Your task to perform on an android device: Open Google Image 0: 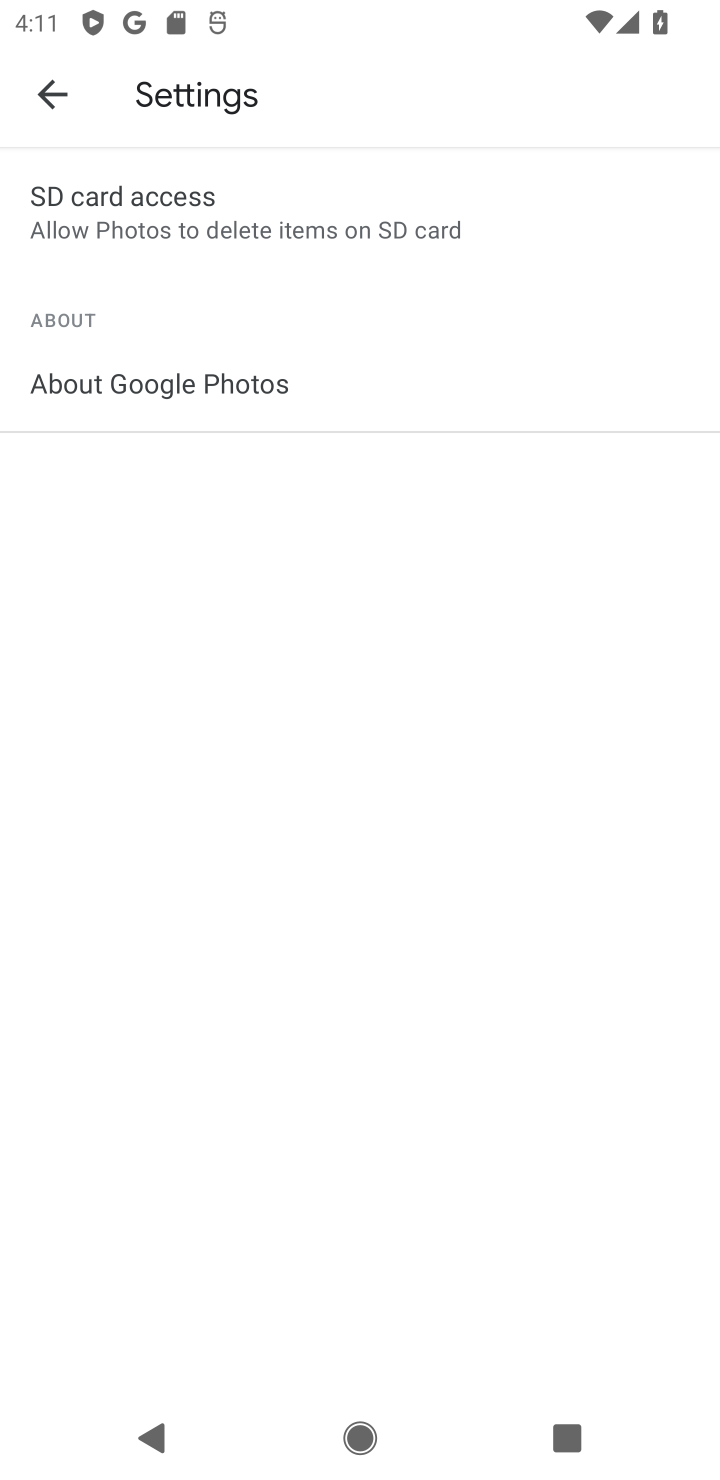
Step 0: press home button
Your task to perform on an android device: Open Google Image 1: 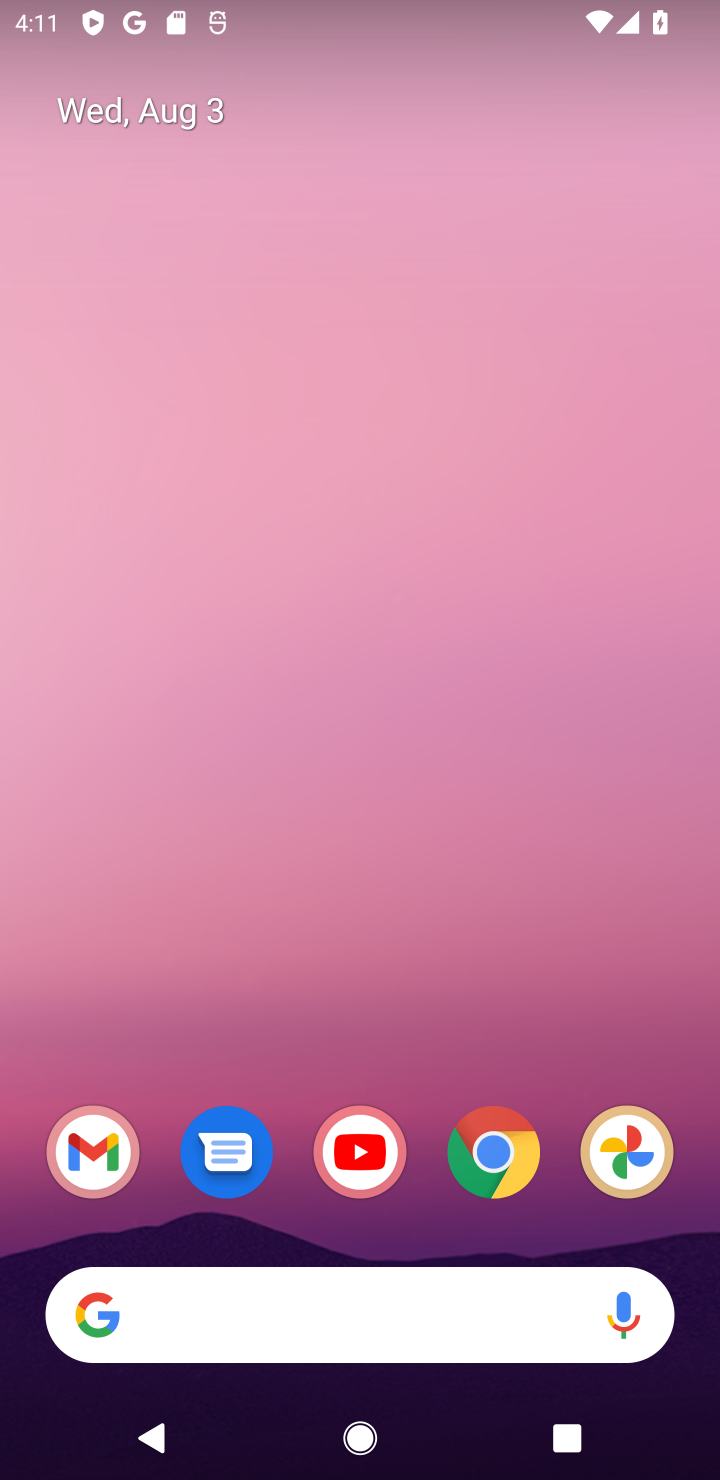
Step 1: drag from (338, 1269) to (342, 113)
Your task to perform on an android device: Open Google Image 2: 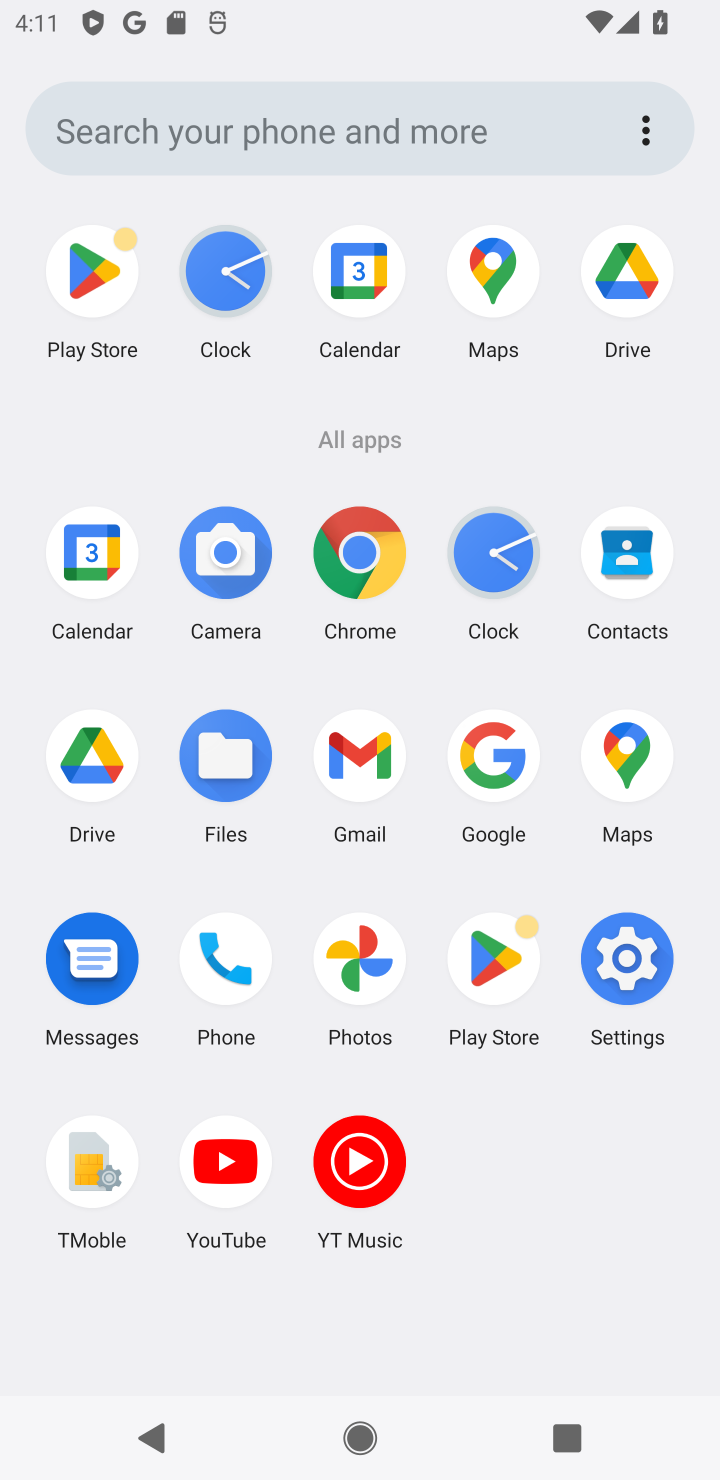
Step 2: click (502, 766)
Your task to perform on an android device: Open Google Image 3: 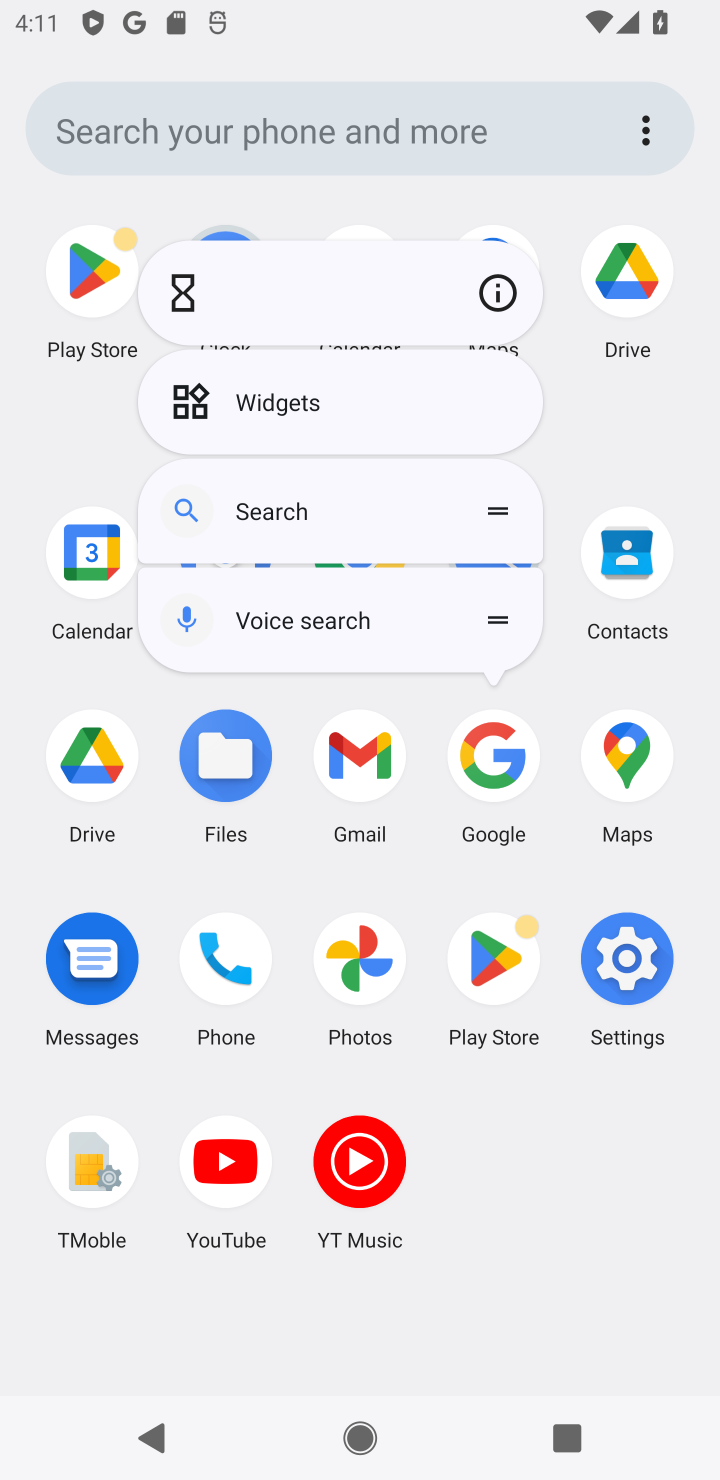
Step 3: click (502, 766)
Your task to perform on an android device: Open Google Image 4: 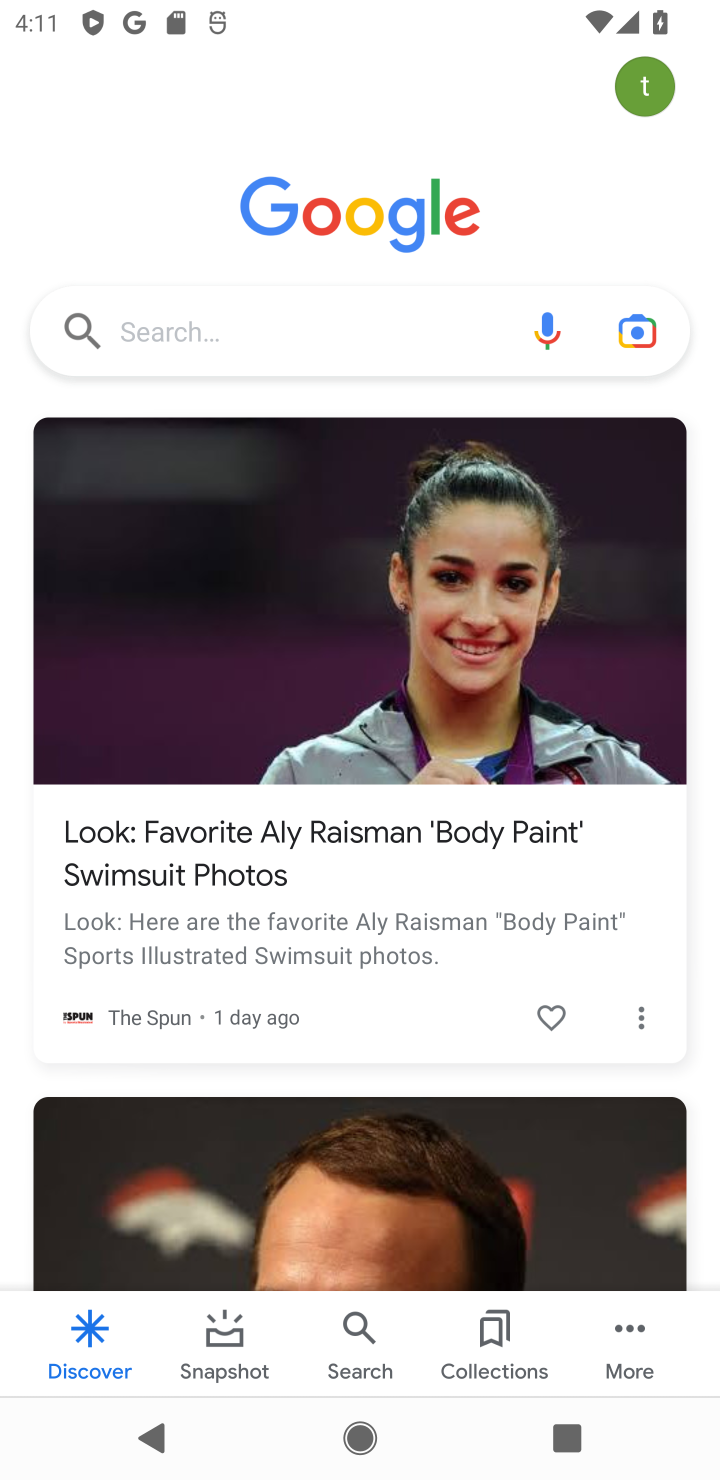
Step 4: task complete